Your task to perform on an android device: Check the news Image 0: 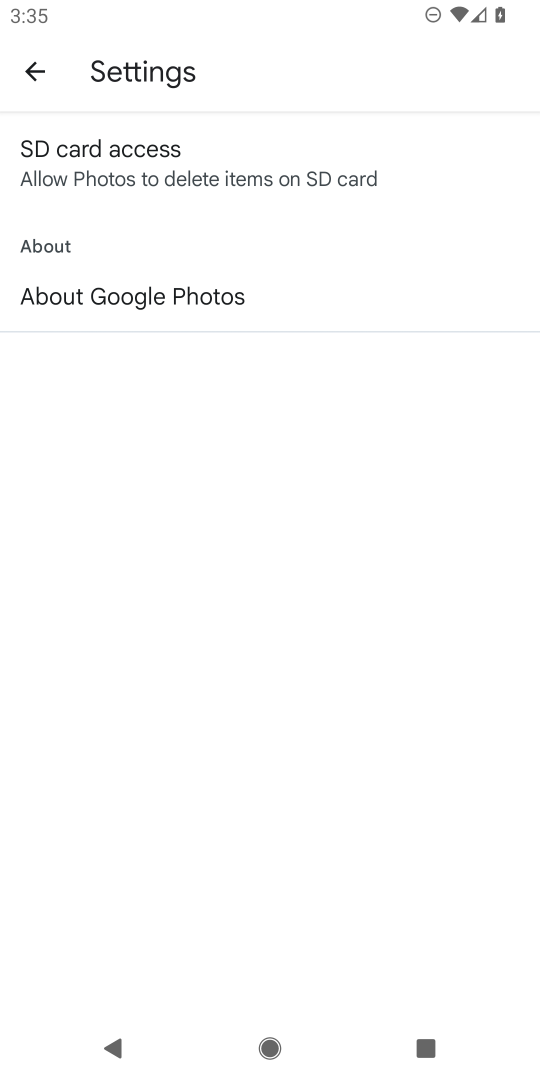
Step 0: press home button
Your task to perform on an android device: Check the news Image 1: 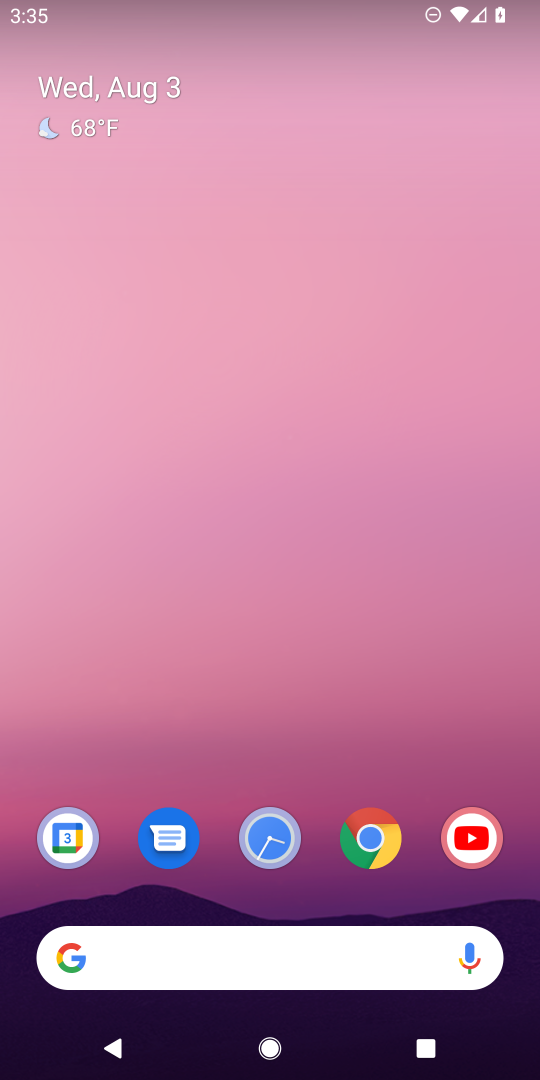
Step 1: click (268, 948)
Your task to perform on an android device: Check the news Image 2: 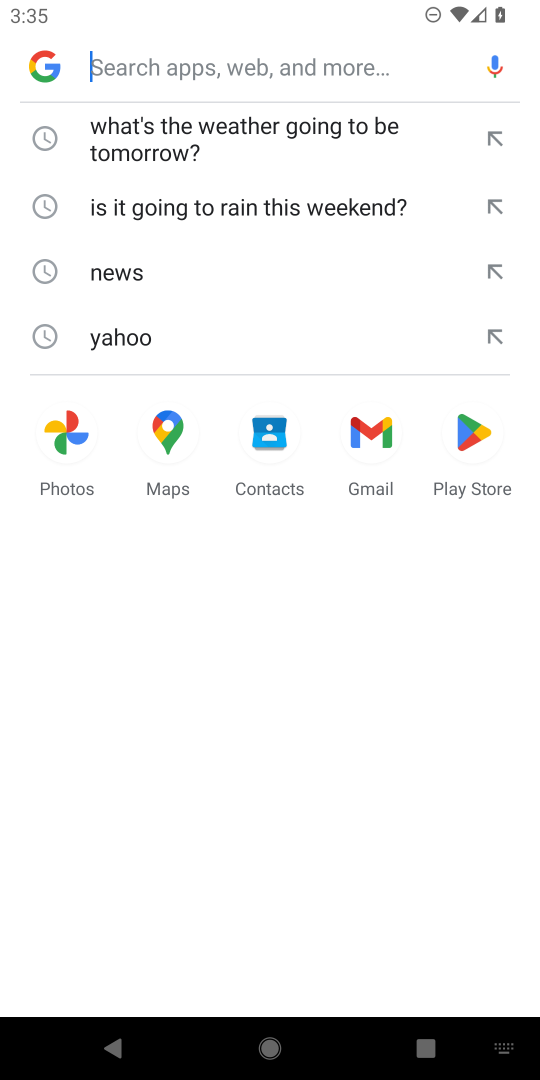
Step 2: type "news"
Your task to perform on an android device: Check the news Image 3: 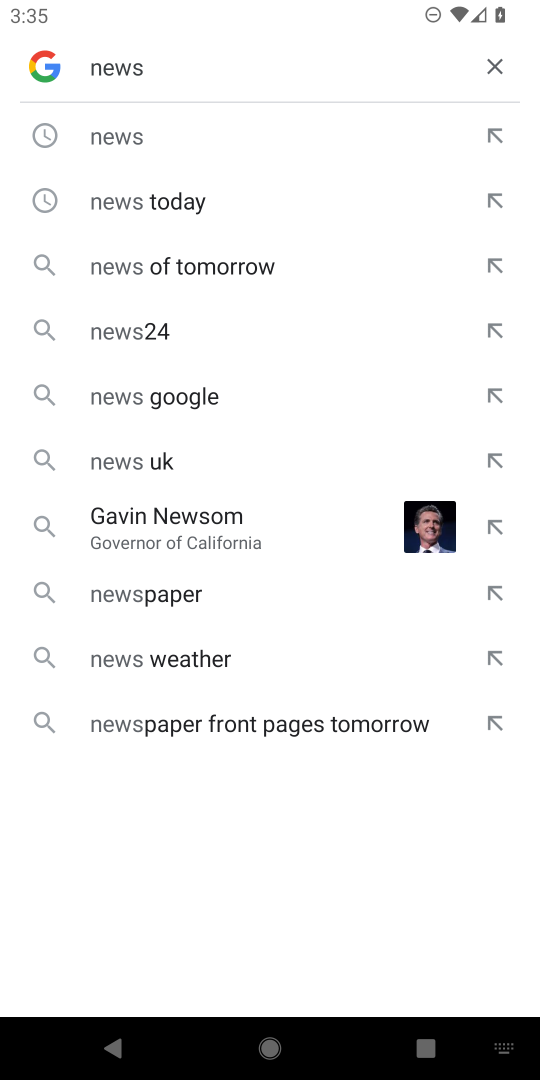
Step 3: click (120, 150)
Your task to perform on an android device: Check the news Image 4: 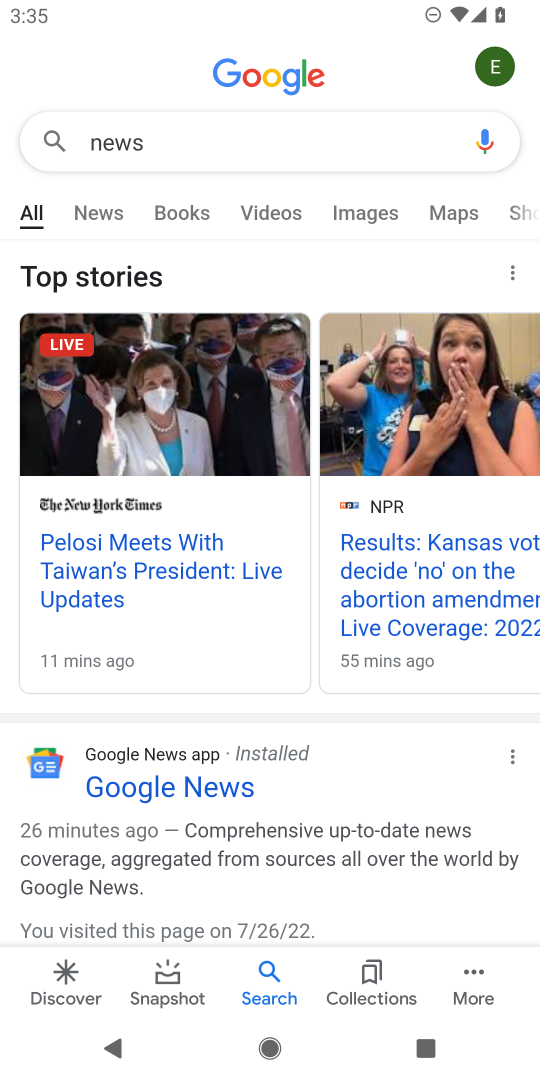
Step 4: click (114, 213)
Your task to perform on an android device: Check the news Image 5: 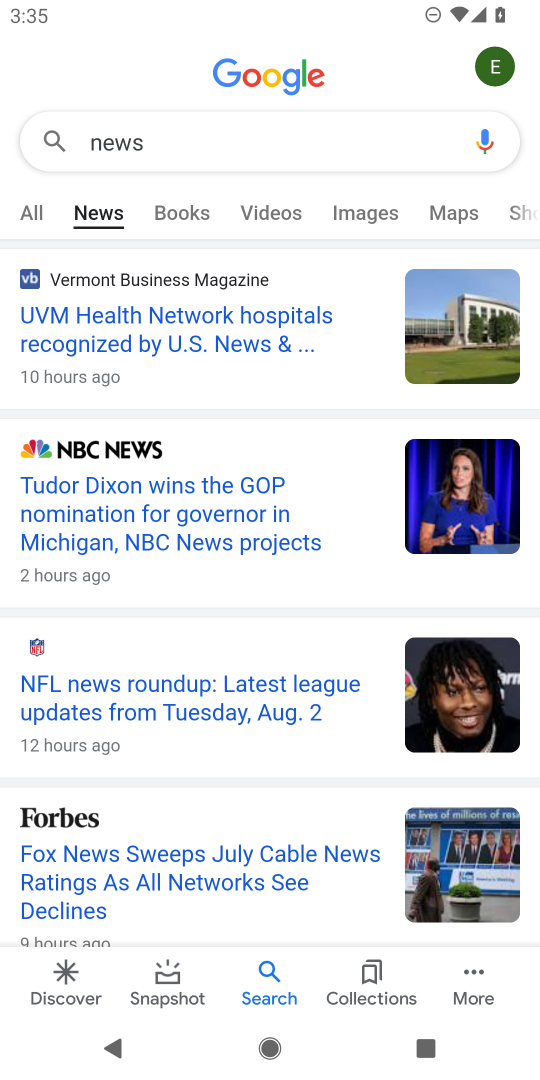
Step 5: task complete